Your task to perform on an android device: Open calendar and show me the third week of next month Image 0: 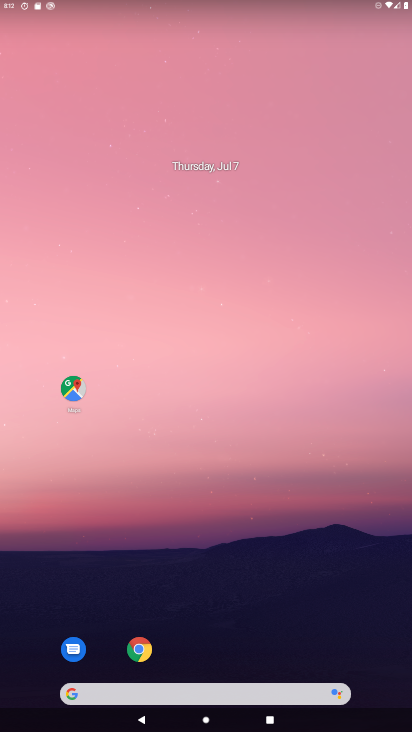
Step 0: drag from (235, 657) to (234, 0)
Your task to perform on an android device: Open calendar and show me the third week of next month Image 1: 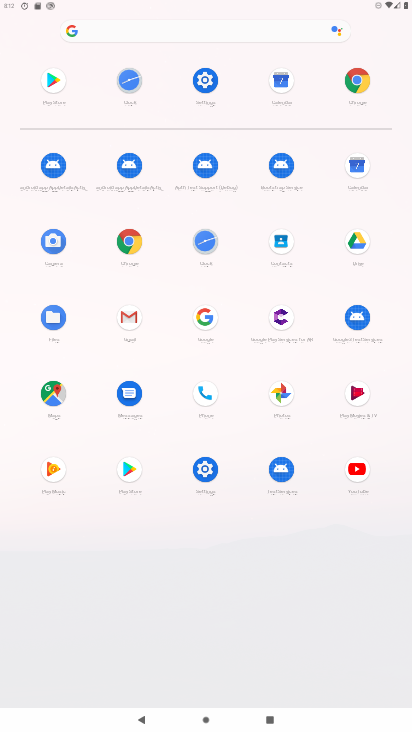
Step 1: click (358, 160)
Your task to perform on an android device: Open calendar and show me the third week of next month Image 2: 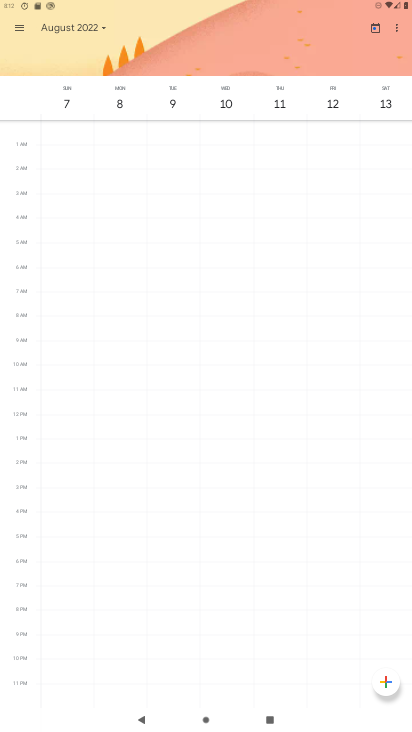
Step 2: click (100, 27)
Your task to perform on an android device: Open calendar and show me the third week of next month Image 3: 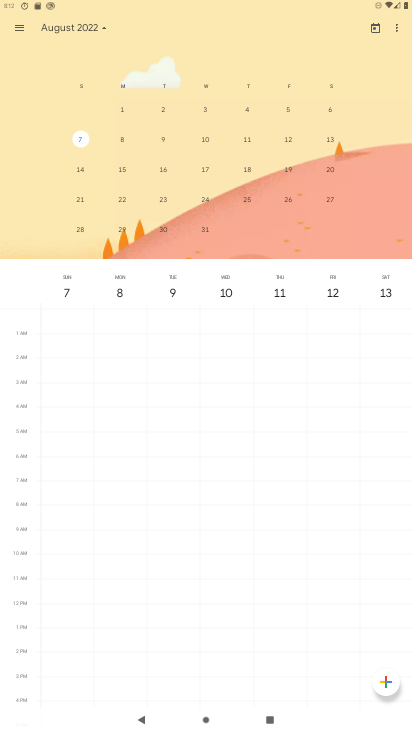
Step 3: drag from (313, 189) to (15, 184)
Your task to perform on an android device: Open calendar and show me the third week of next month Image 4: 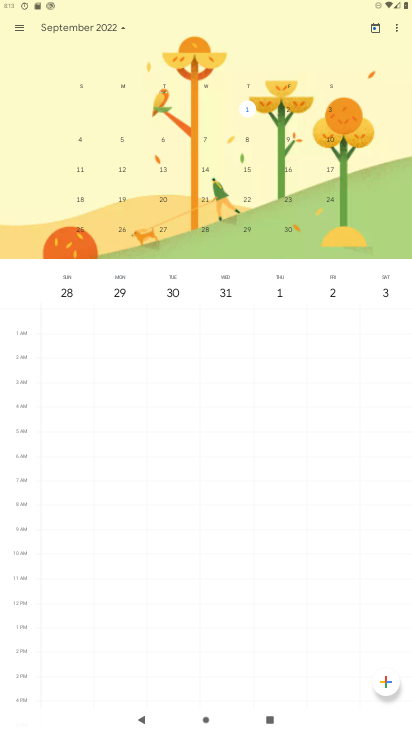
Step 4: drag from (74, 175) to (381, 183)
Your task to perform on an android device: Open calendar and show me the third week of next month Image 5: 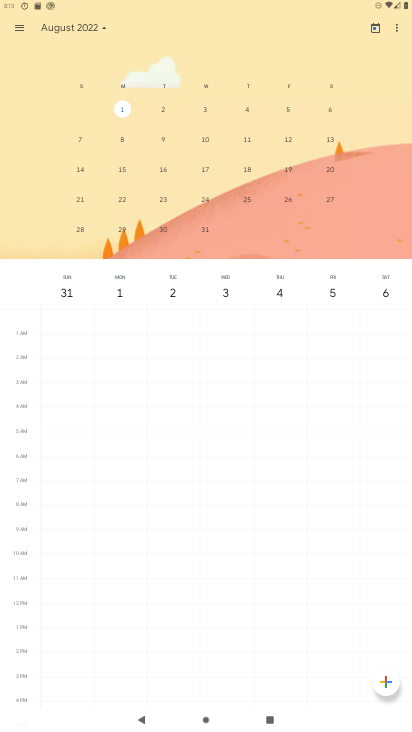
Step 5: click (83, 167)
Your task to perform on an android device: Open calendar and show me the third week of next month Image 6: 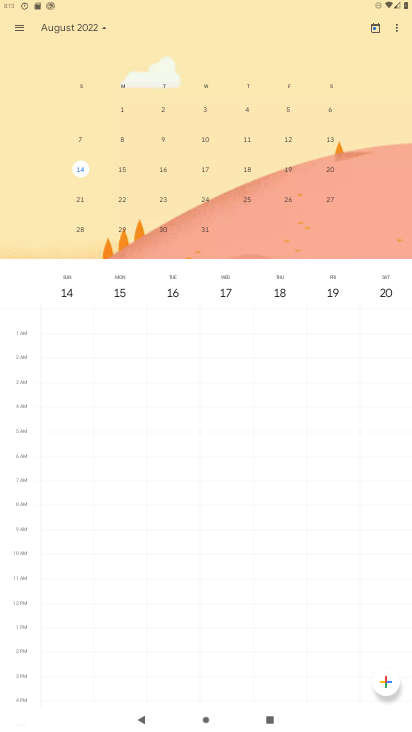
Step 6: click (99, 28)
Your task to perform on an android device: Open calendar and show me the third week of next month Image 7: 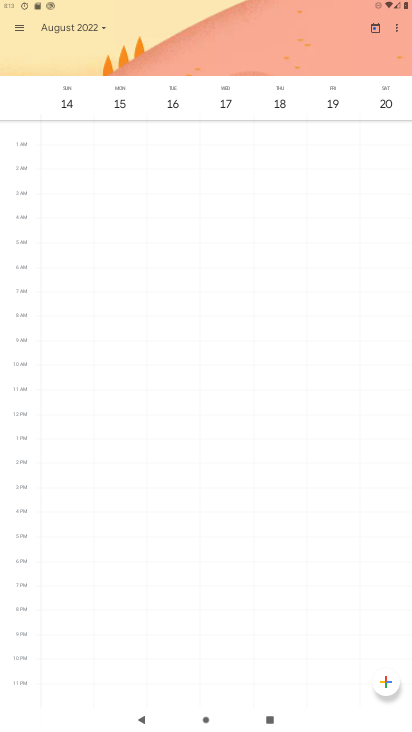
Step 7: task complete